Your task to perform on an android device: Open the stopwatch Image 0: 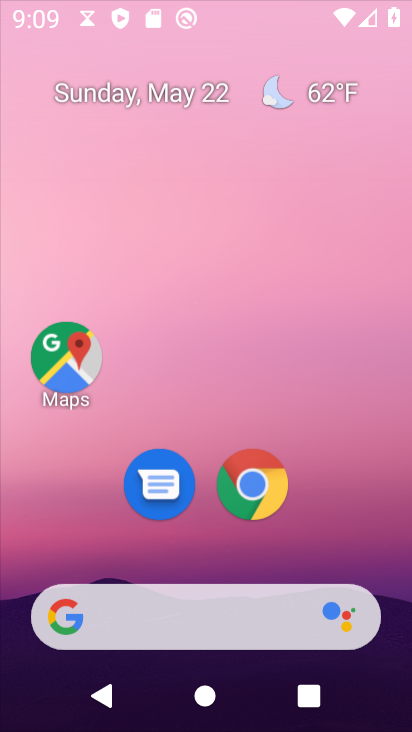
Step 0: press home button
Your task to perform on an android device: Open the stopwatch Image 1: 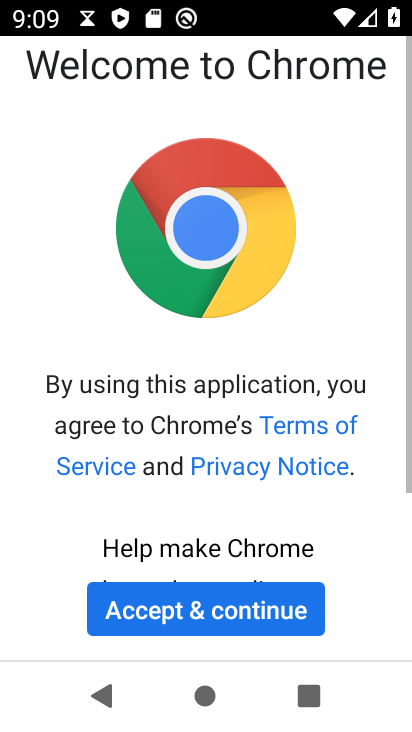
Step 1: press home button
Your task to perform on an android device: Open the stopwatch Image 2: 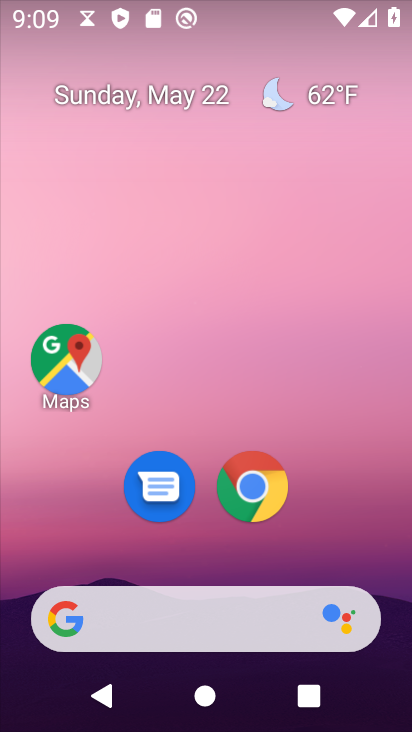
Step 2: drag from (213, 550) to (230, 5)
Your task to perform on an android device: Open the stopwatch Image 3: 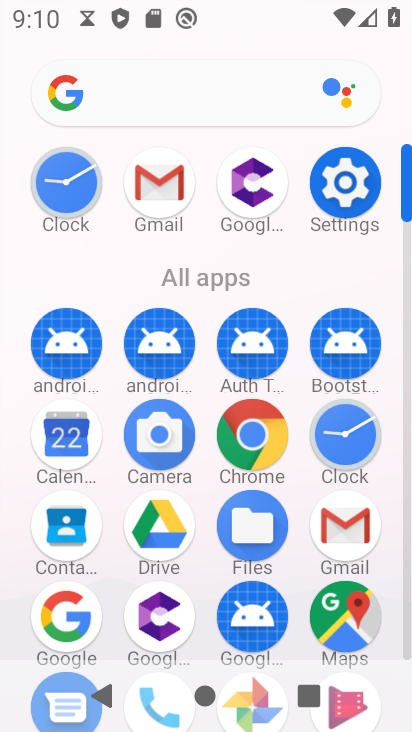
Step 3: click (342, 425)
Your task to perform on an android device: Open the stopwatch Image 4: 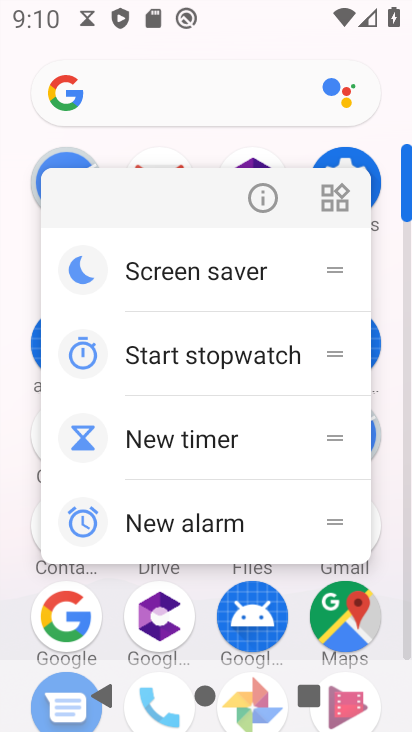
Step 4: click (388, 436)
Your task to perform on an android device: Open the stopwatch Image 5: 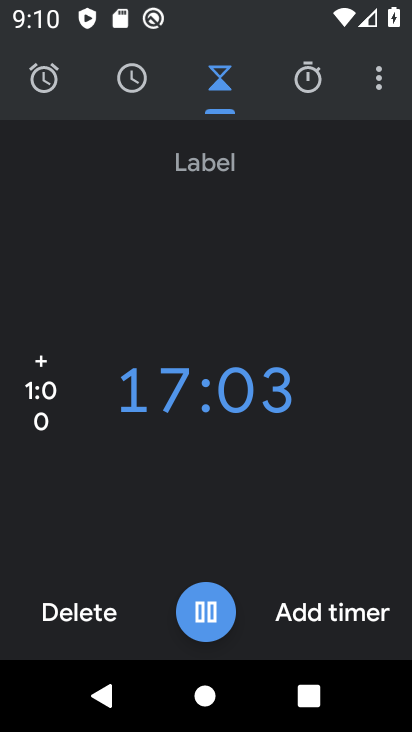
Step 5: click (303, 73)
Your task to perform on an android device: Open the stopwatch Image 6: 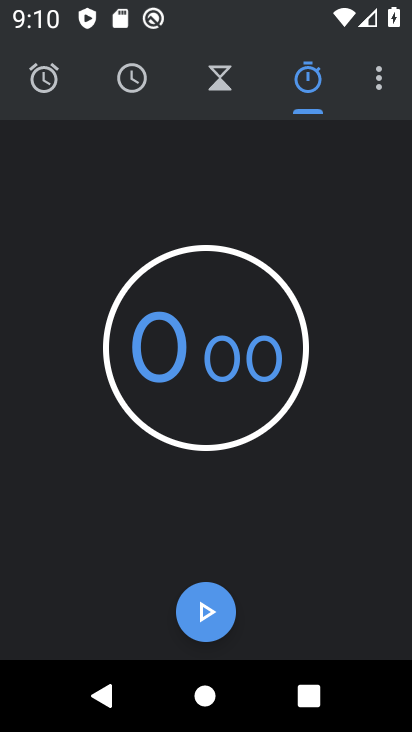
Step 6: click (205, 607)
Your task to perform on an android device: Open the stopwatch Image 7: 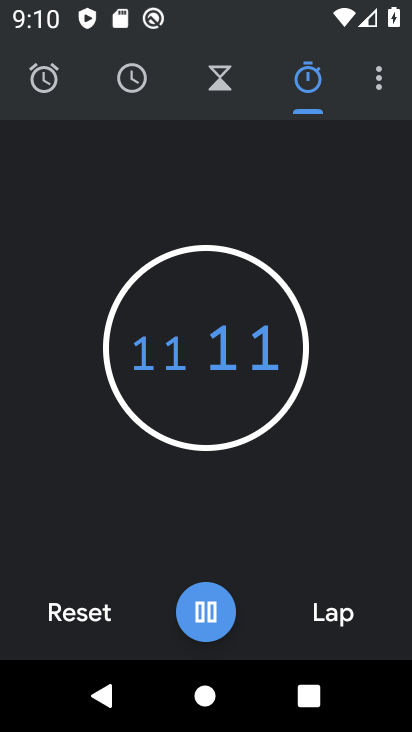
Step 7: click (82, 608)
Your task to perform on an android device: Open the stopwatch Image 8: 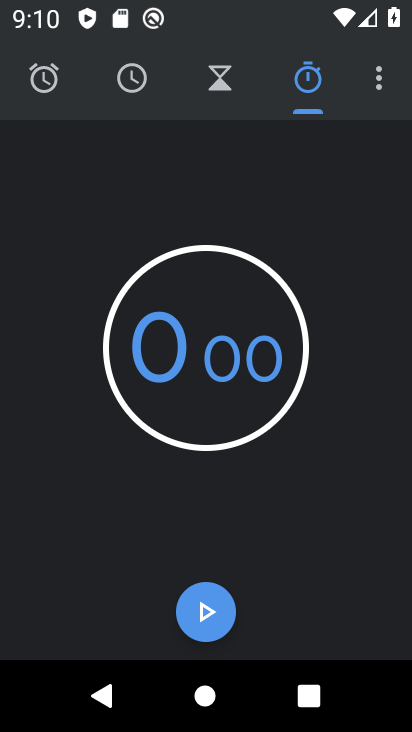
Step 8: task complete